Your task to perform on an android device: Open the phone app and click the voicemail tab. Image 0: 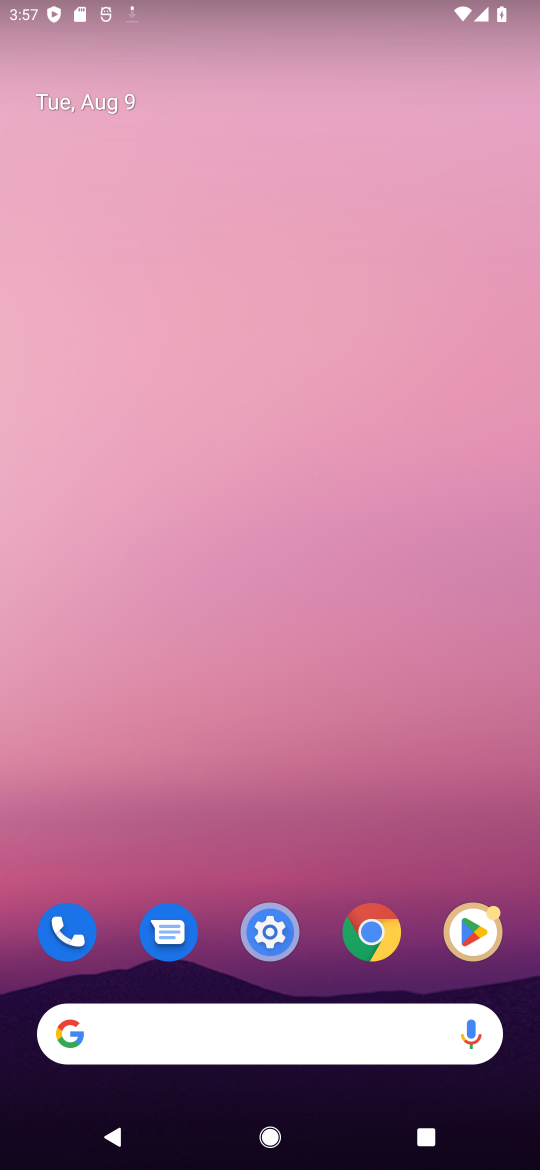
Step 0: drag from (286, 1018) to (180, 178)
Your task to perform on an android device: Open the phone app and click the voicemail tab. Image 1: 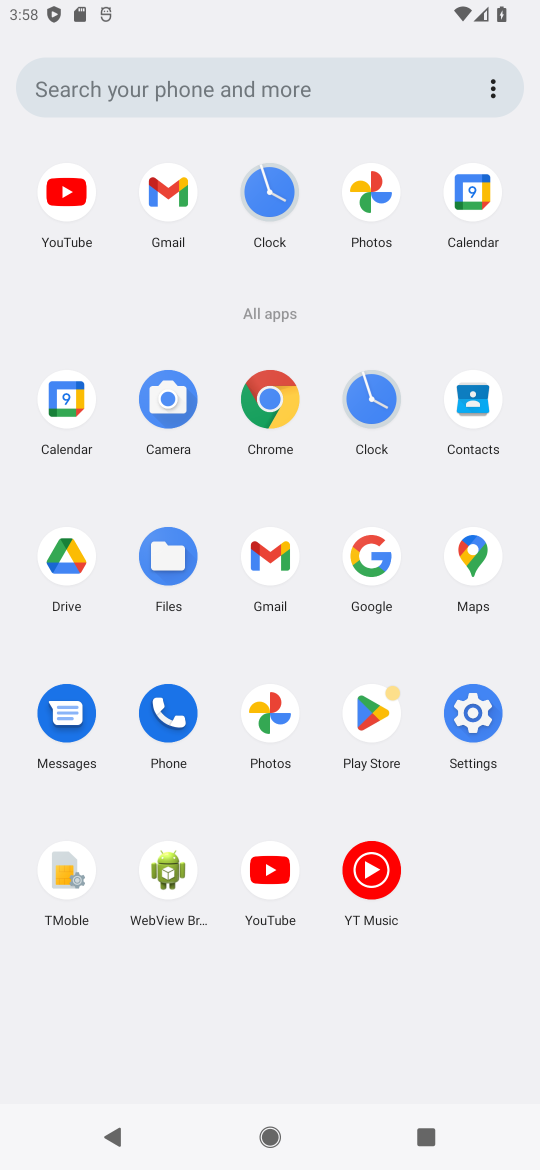
Step 1: click (174, 711)
Your task to perform on an android device: Open the phone app and click the voicemail tab. Image 2: 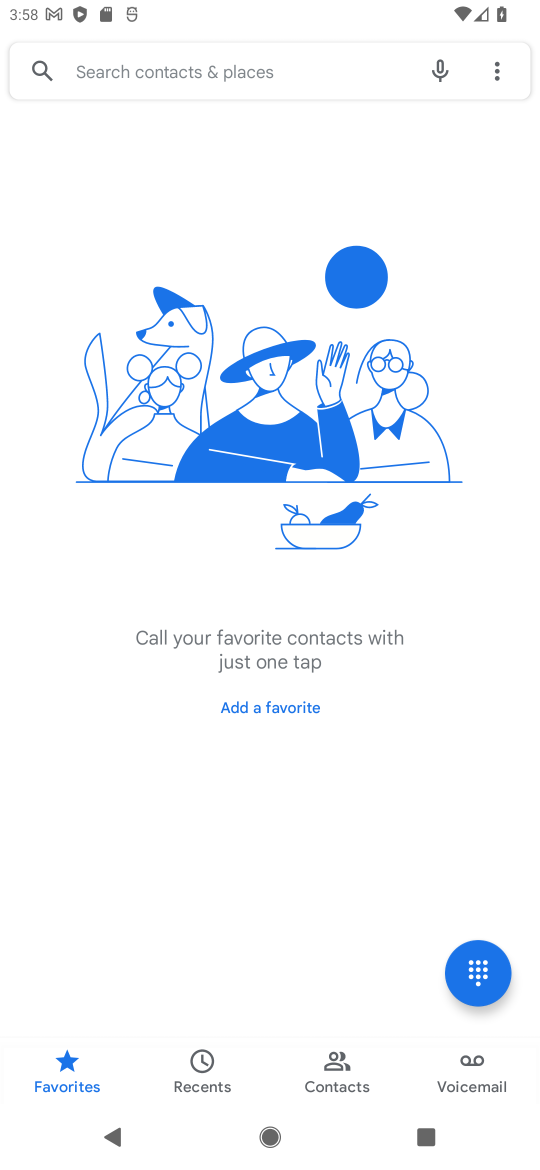
Step 2: click (478, 1067)
Your task to perform on an android device: Open the phone app and click the voicemail tab. Image 3: 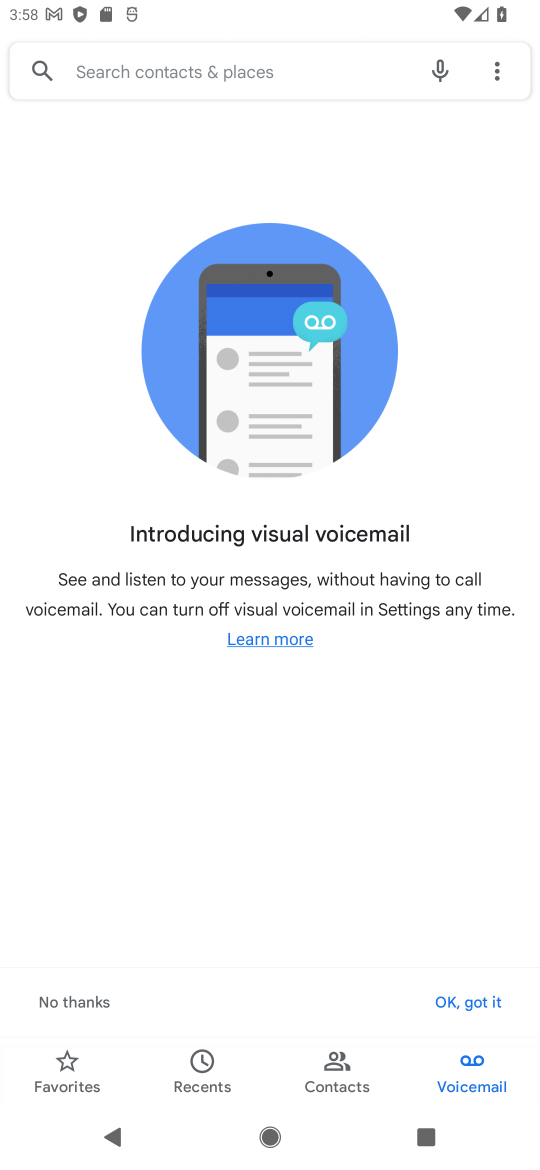
Step 3: task complete